Your task to perform on an android device: check data usage Image 0: 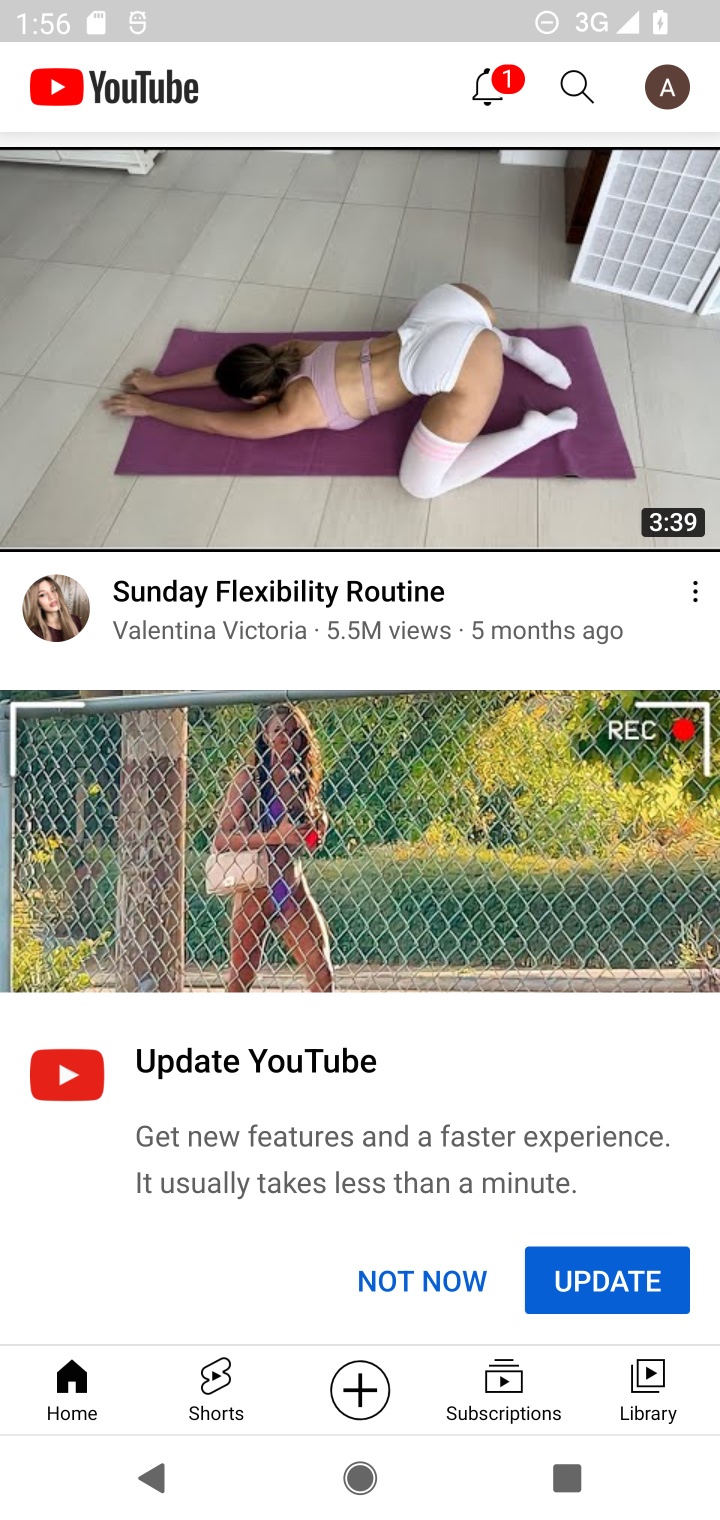
Step 0: press home button
Your task to perform on an android device: check data usage Image 1: 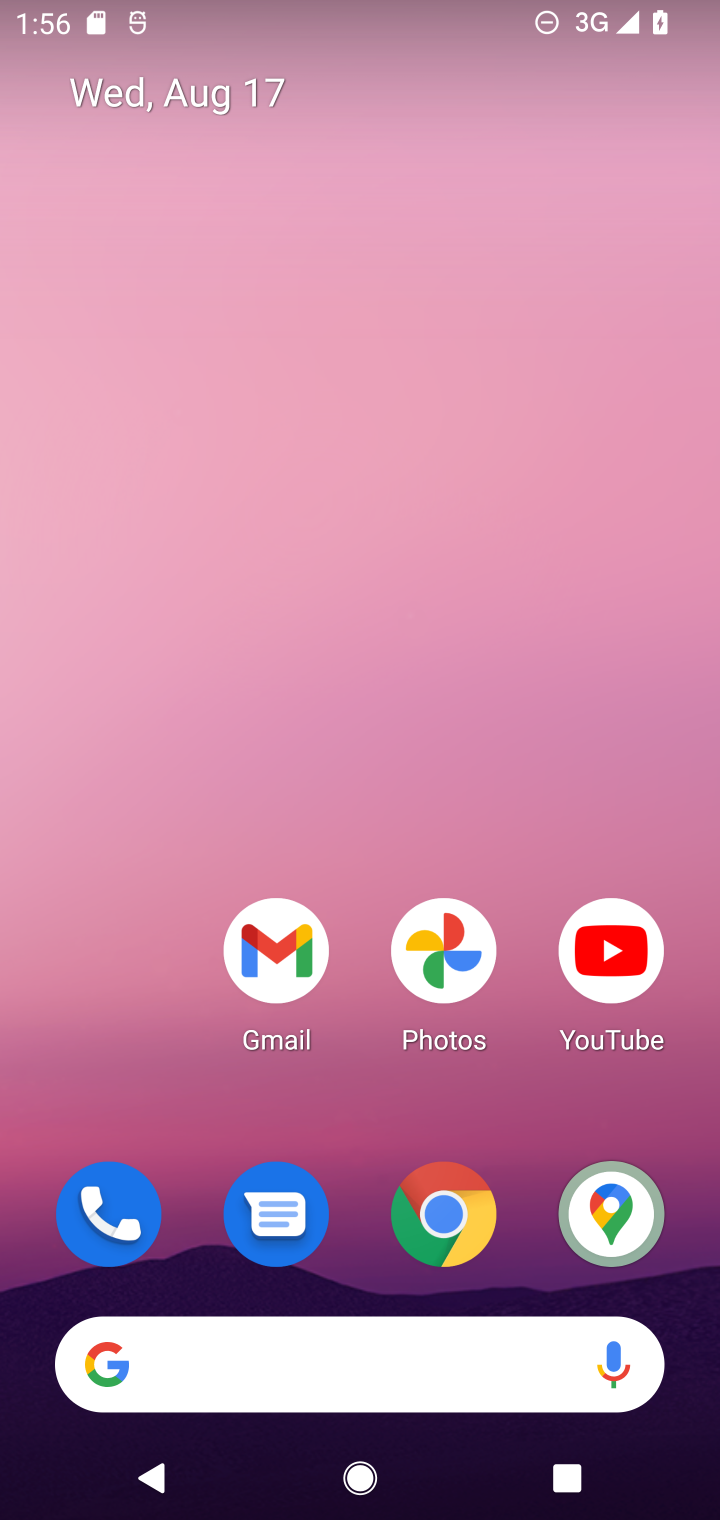
Step 1: drag from (357, 1120) to (343, 332)
Your task to perform on an android device: check data usage Image 2: 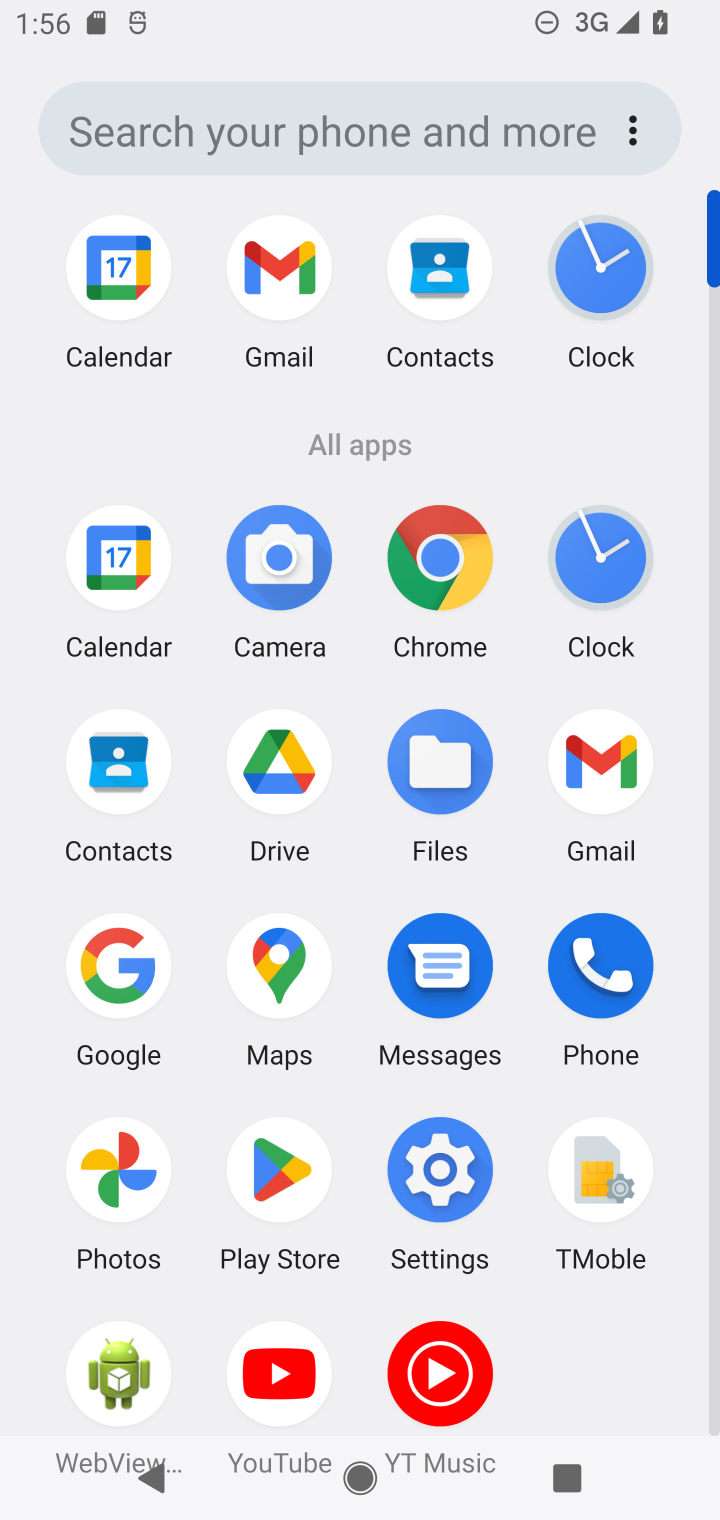
Step 2: click (448, 1173)
Your task to perform on an android device: check data usage Image 3: 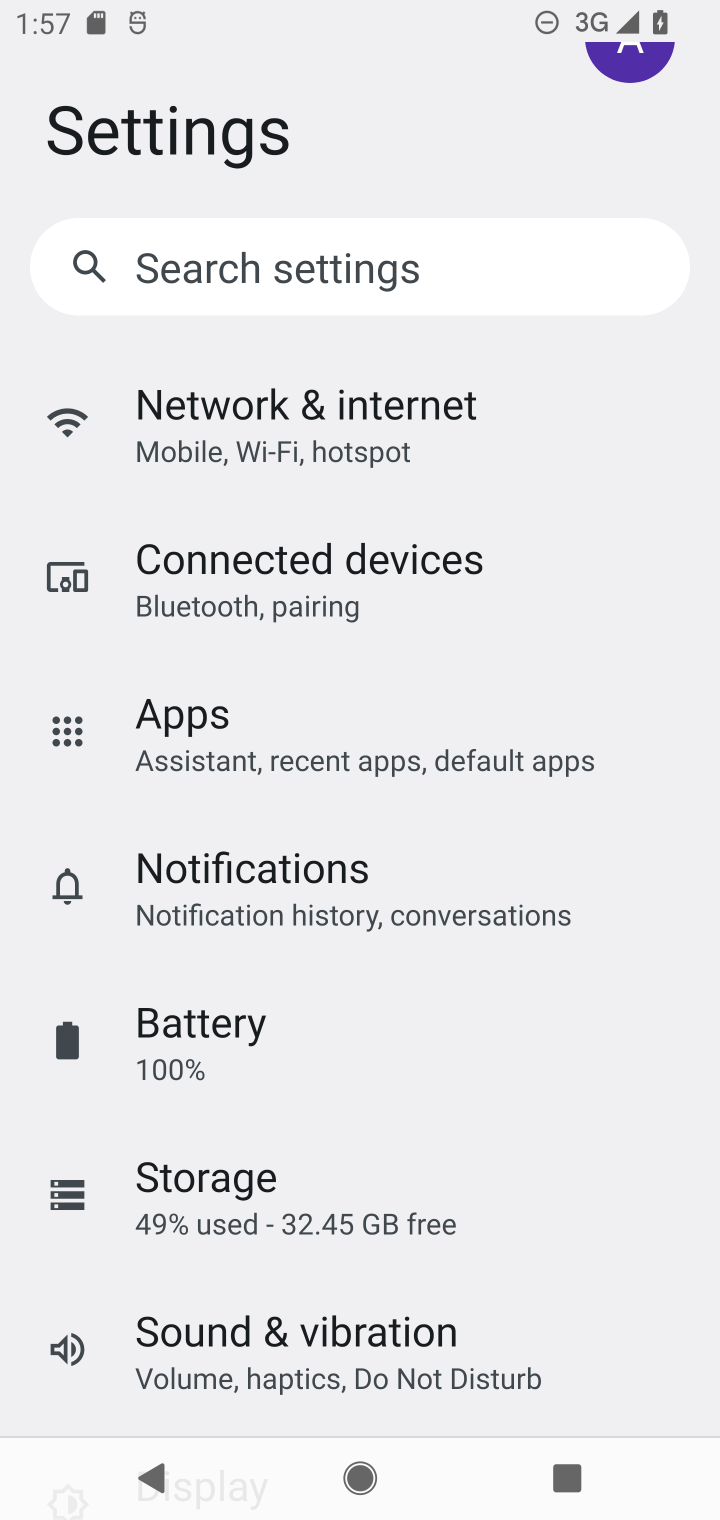
Step 3: drag from (476, 1284) to (465, 1029)
Your task to perform on an android device: check data usage Image 4: 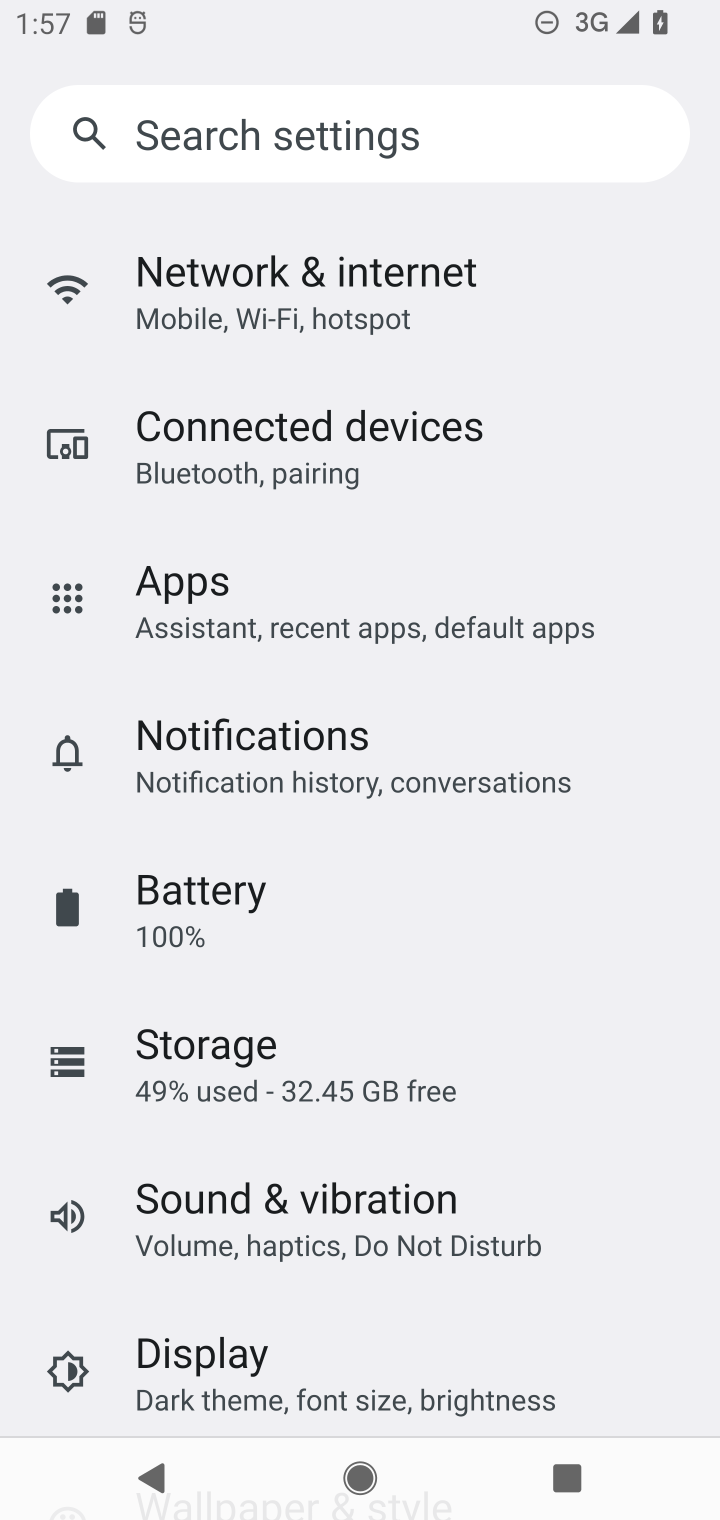
Step 4: click (261, 261)
Your task to perform on an android device: check data usage Image 5: 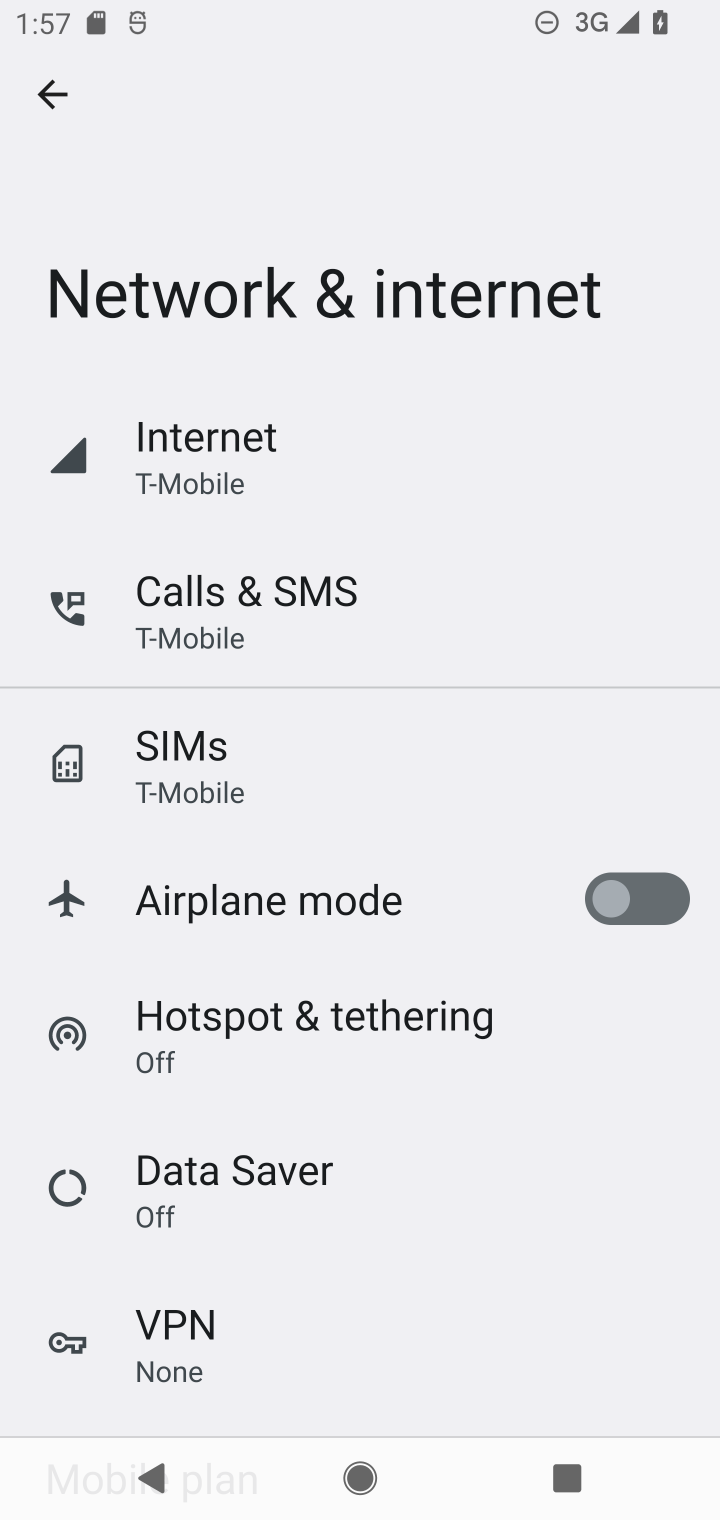
Step 5: click (219, 444)
Your task to perform on an android device: check data usage Image 6: 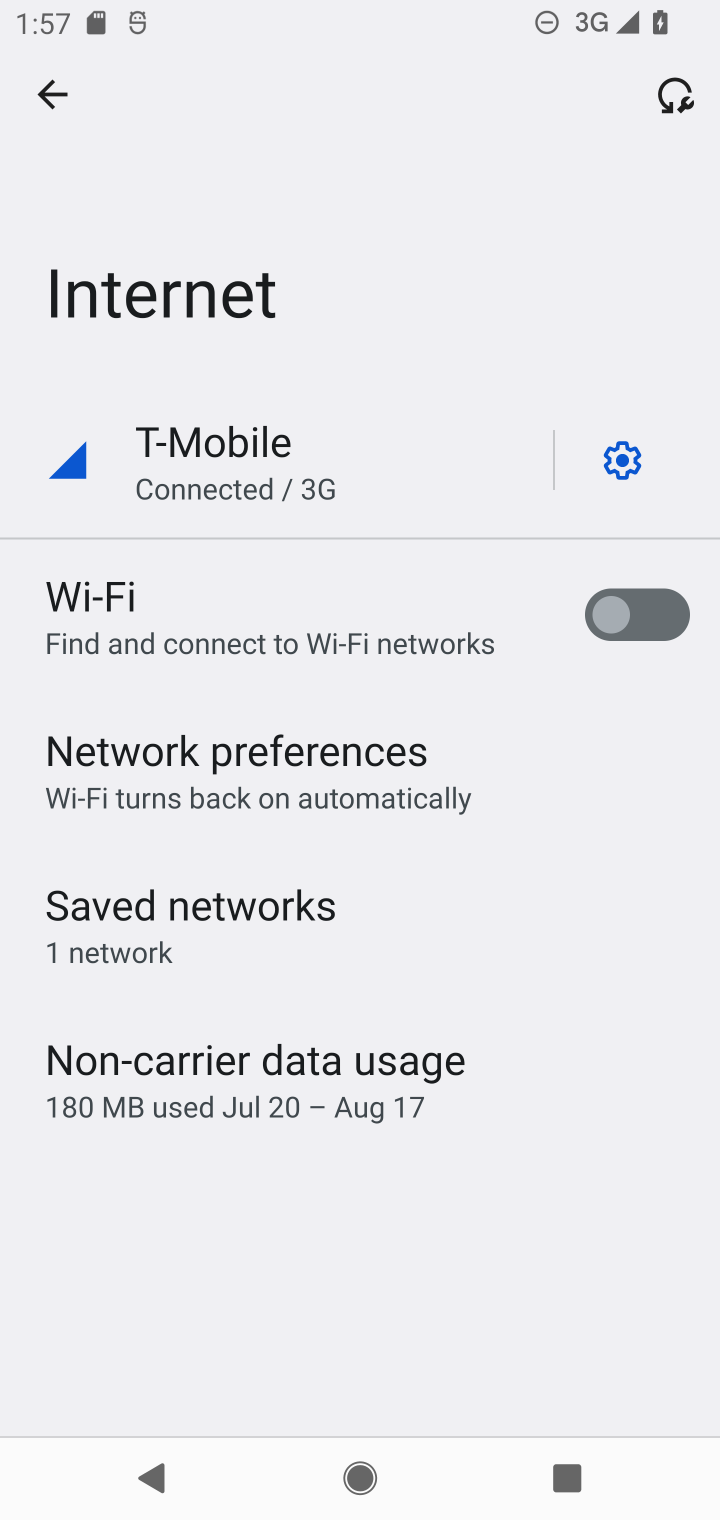
Step 6: click (240, 1060)
Your task to perform on an android device: check data usage Image 7: 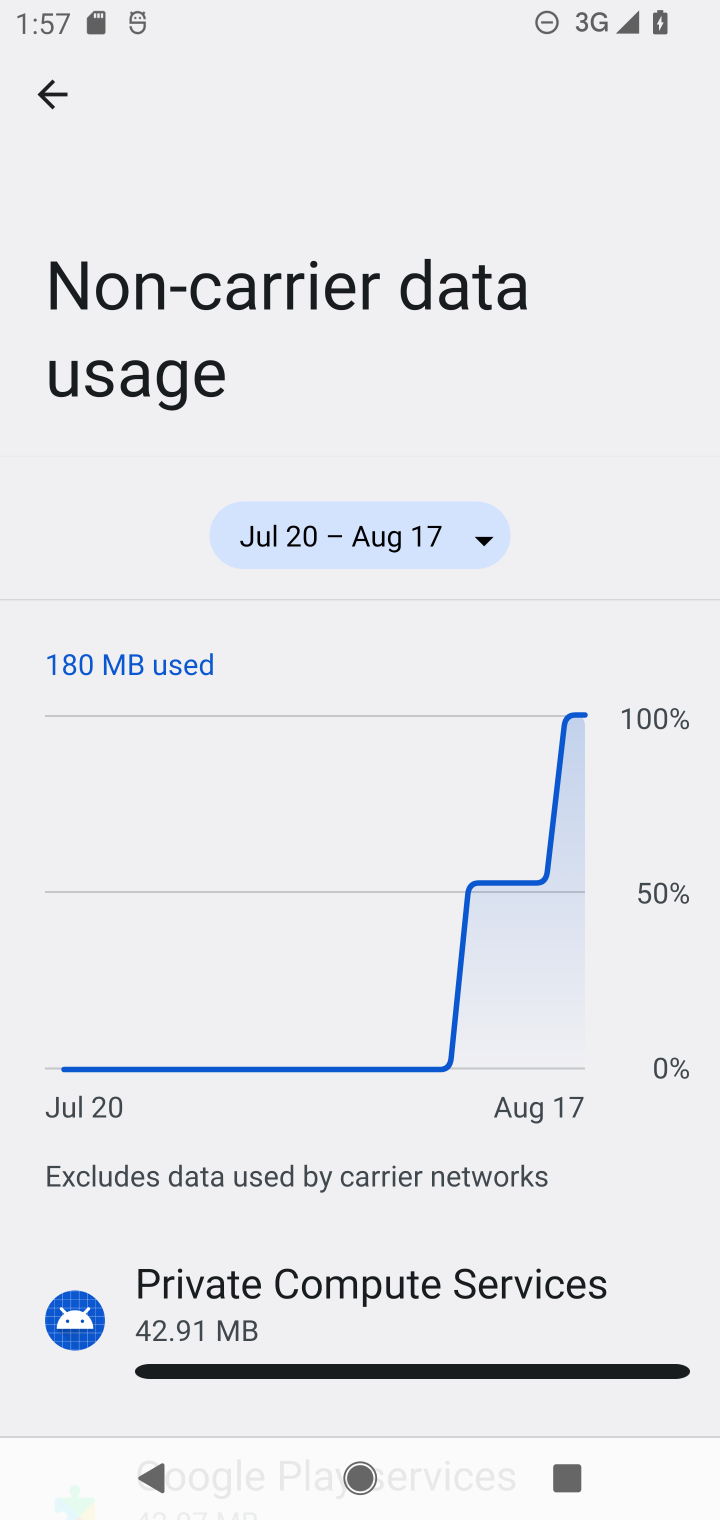
Step 7: task complete